Your task to perform on an android device: Open the map Image 0: 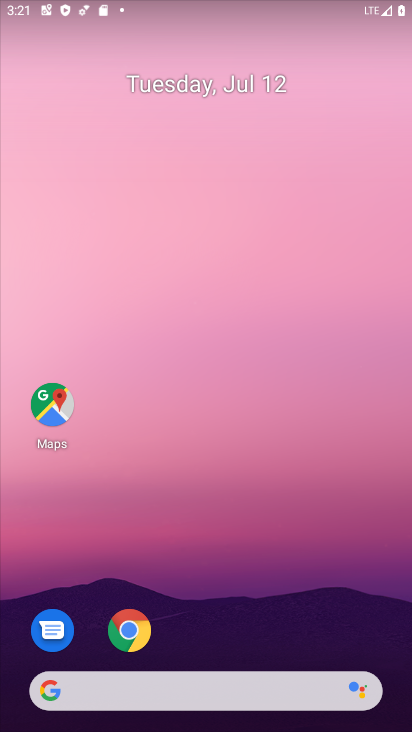
Step 0: drag from (206, 665) to (242, 119)
Your task to perform on an android device: Open the map Image 1: 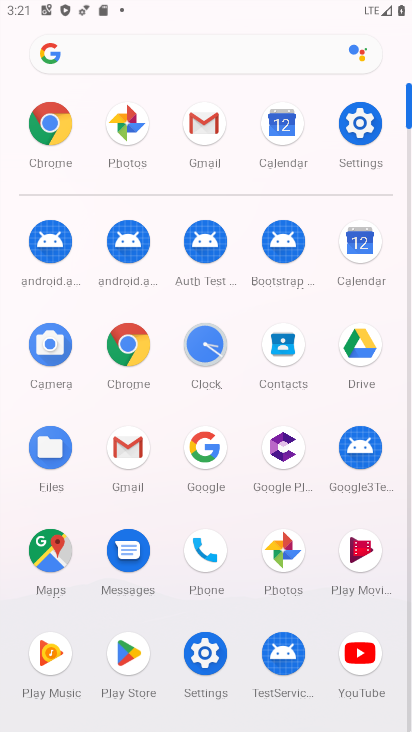
Step 1: click (64, 554)
Your task to perform on an android device: Open the map Image 2: 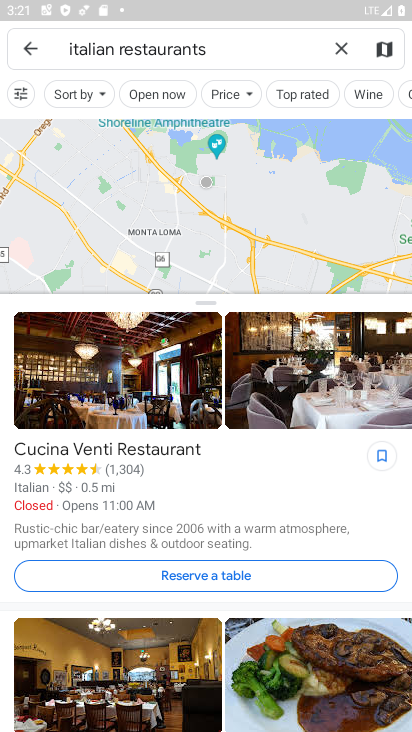
Step 2: task complete